Your task to perform on an android device: What is the recent news? Image 0: 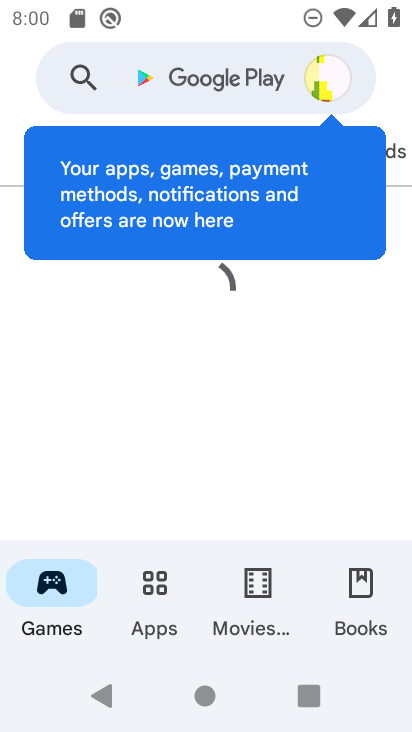
Step 0: press home button
Your task to perform on an android device: What is the recent news? Image 1: 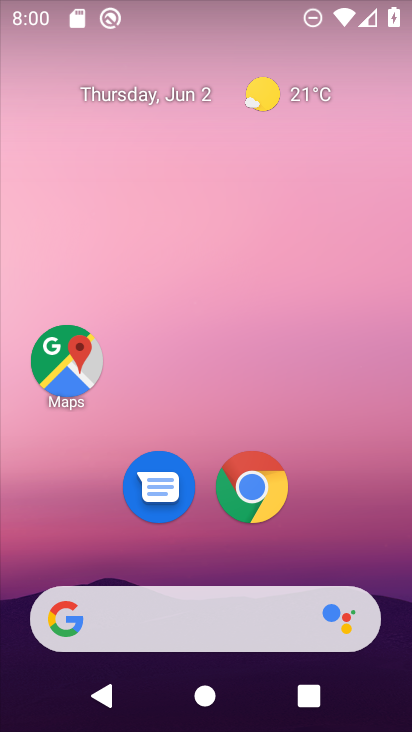
Step 1: click (249, 488)
Your task to perform on an android device: What is the recent news? Image 2: 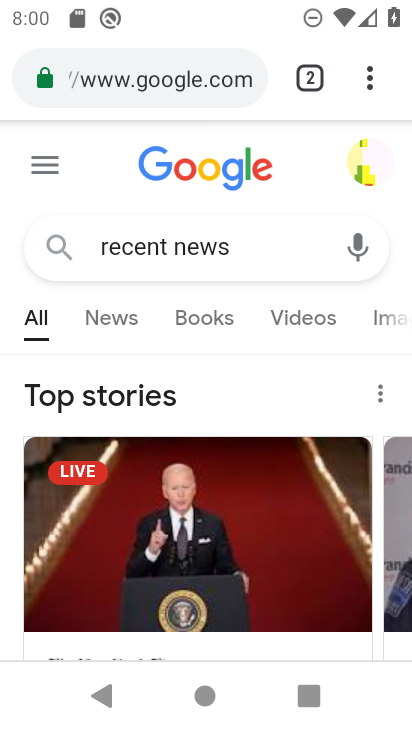
Step 2: click (135, 79)
Your task to perform on an android device: What is the recent news? Image 3: 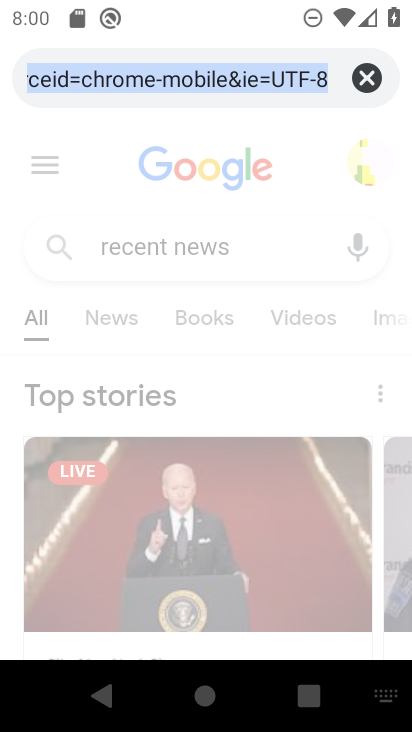
Step 3: type "recent news"
Your task to perform on an android device: What is the recent news? Image 4: 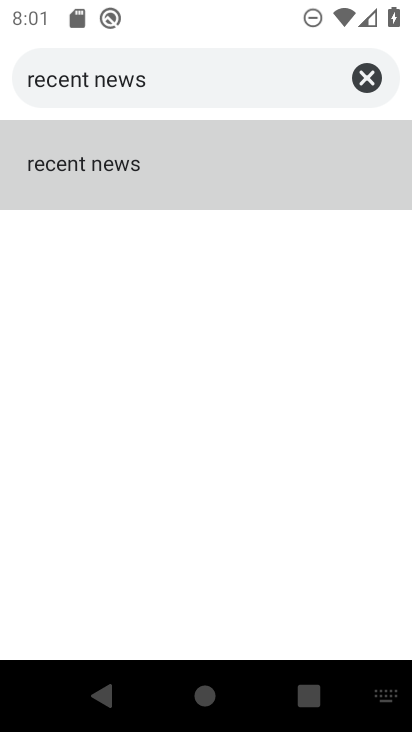
Step 4: click (105, 183)
Your task to perform on an android device: What is the recent news? Image 5: 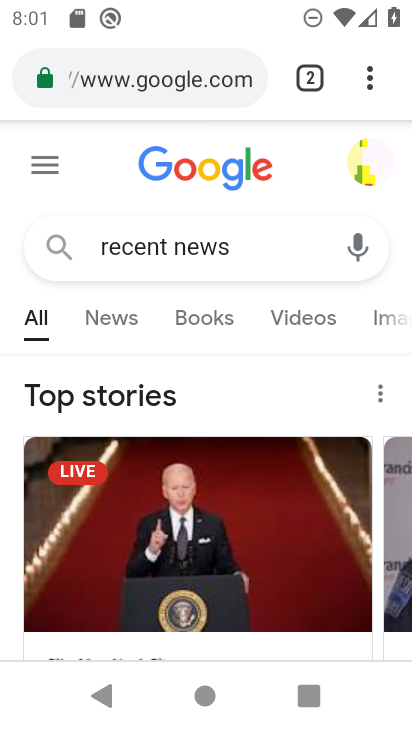
Step 5: task complete